Your task to perform on an android device: Go to ESPN.com Image 0: 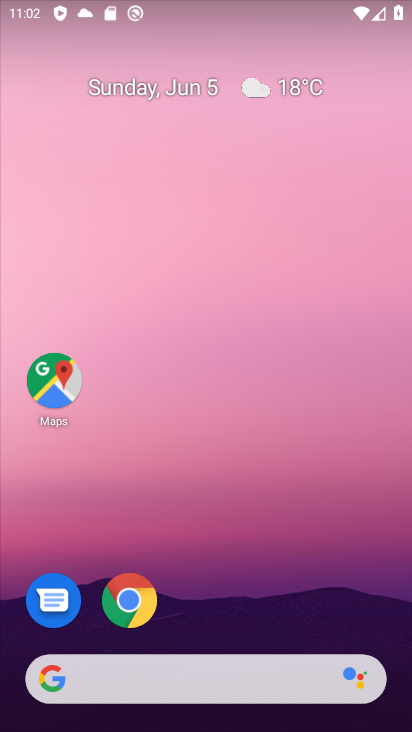
Step 0: click (140, 607)
Your task to perform on an android device: Go to ESPN.com Image 1: 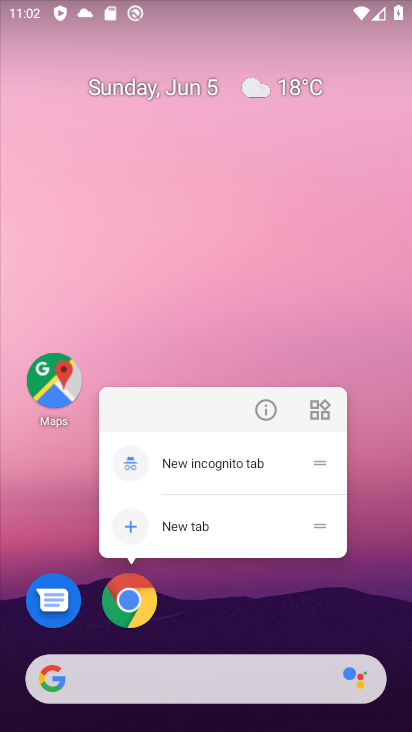
Step 1: click (119, 619)
Your task to perform on an android device: Go to ESPN.com Image 2: 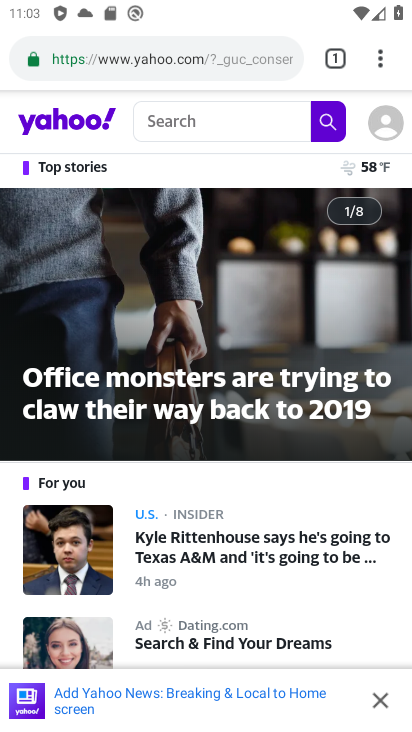
Step 2: drag from (402, 51) to (328, 132)
Your task to perform on an android device: Go to ESPN.com Image 3: 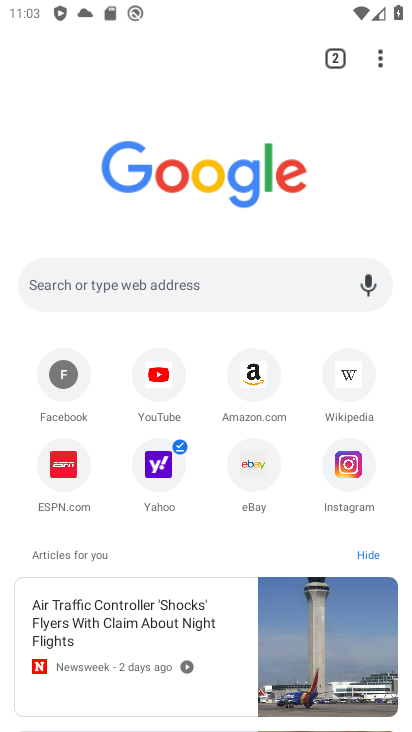
Step 3: click (69, 481)
Your task to perform on an android device: Go to ESPN.com Image 4: 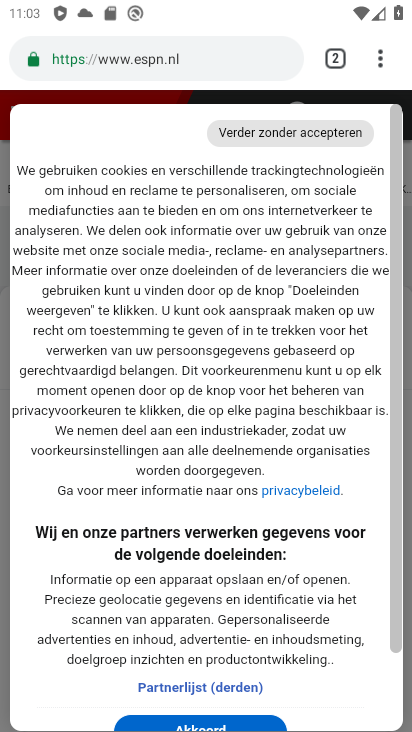
Step 4: click (230, 729)
Your task to perform on an android device: Go to ESPN.com Image 5: 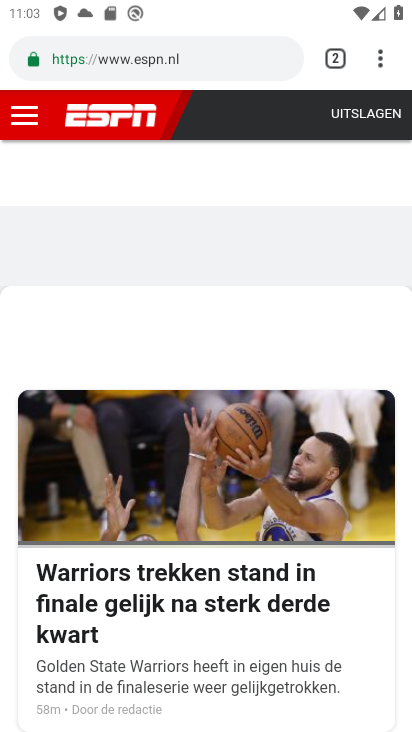
Step 5: task complete